Your task to perform on an android device: What's the weather? Image 0: 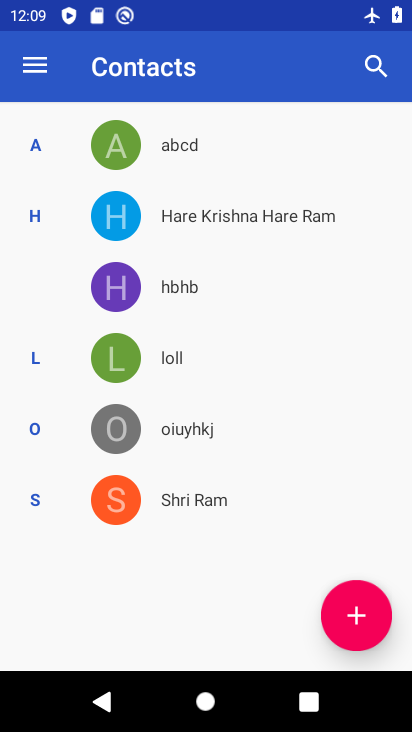
Step 0: press home button
Your task to perform on an android device: What's the weather? Image 1: 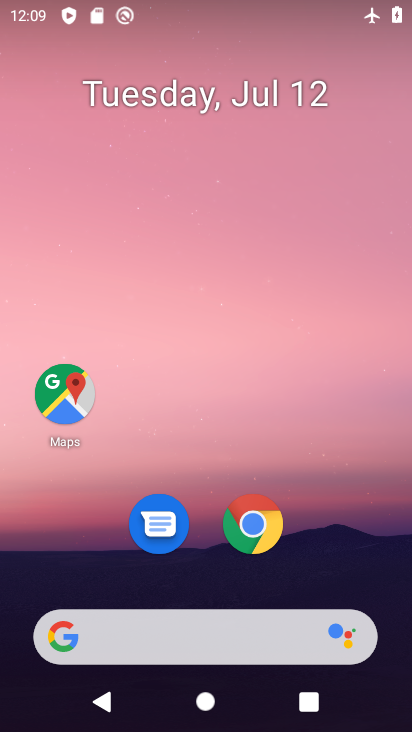
Step 1: click (205, 636)
Your task to perform on an android device: What's the weather? Image 2: 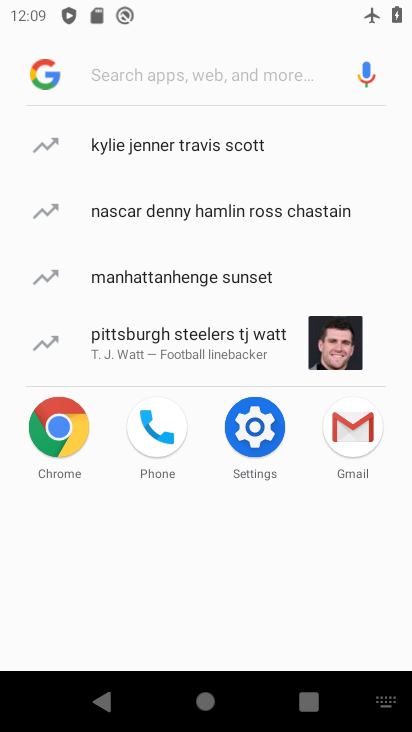
Step 2: type "weather"
Your task to perform on an android device: What's the weather? Image 3: 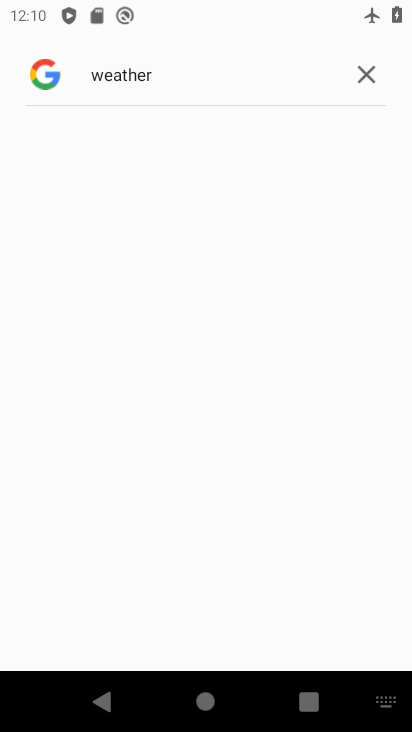
Step 3: task complete